Your task to perform on an android device: Is it going to rain tomorrow? Image 0: 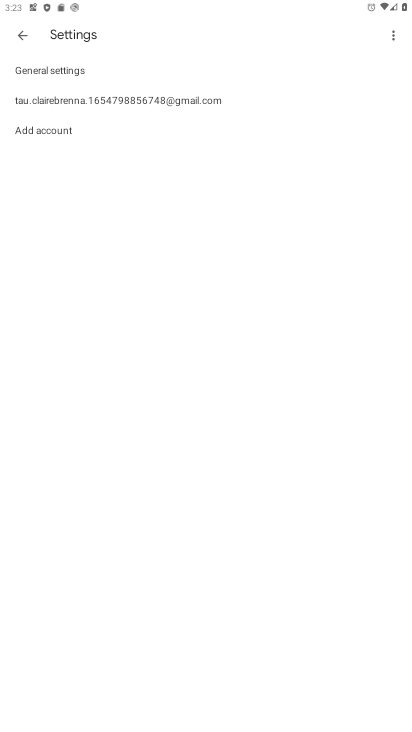
Step 0: press home button
Your task to perform on an android device: Is it going to rain tomorrow? Image 1: 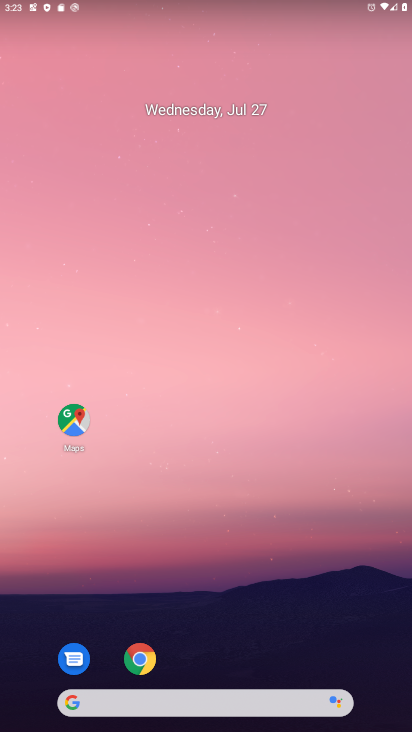
Step 1: click (141, 659)
Your task to perform on an android device: Is it going to rain tomorrow? Image 2: 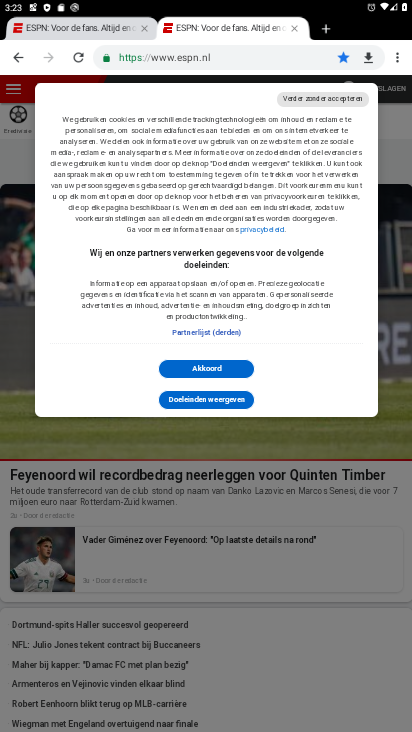
Step 2: click (249, 55)
Your task to perform on an android device: Is it going to rain tomorrow? Image 3: 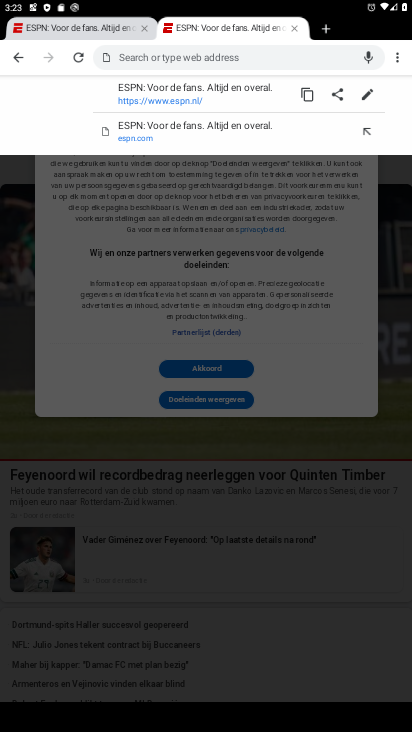
Step 3: type "Is it going to rain tomorrow?"
Your task to perform on an android device: Is it going to rain tomorrow? Image 4: 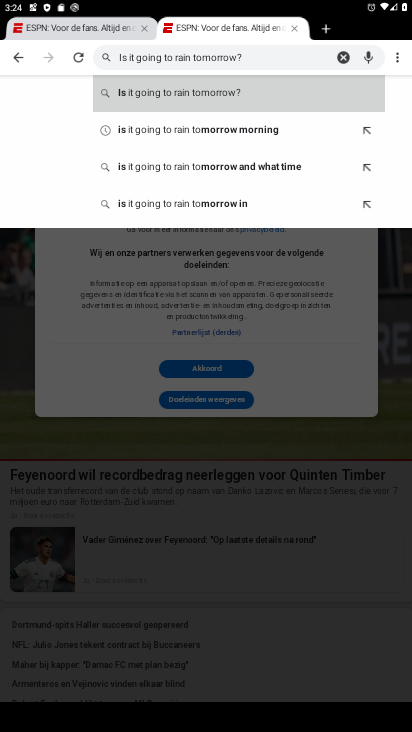
Step 4: click (255, 89)
Your task to perform on an android device: Is it going to rain tomorrow? Image 5: 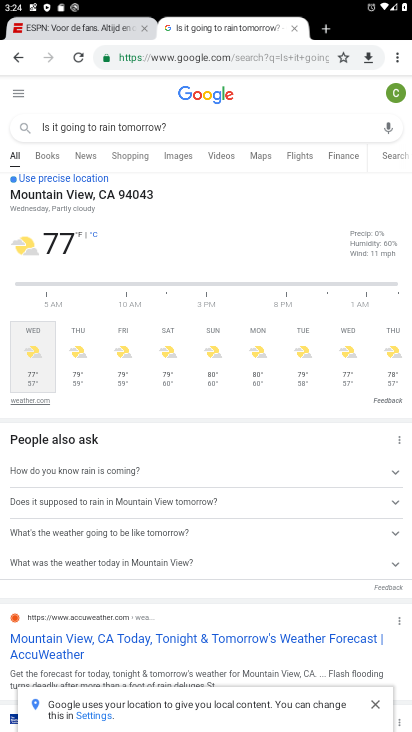
Step 5: task complete